Your task to perform on an android device: See recent photos Image 0: 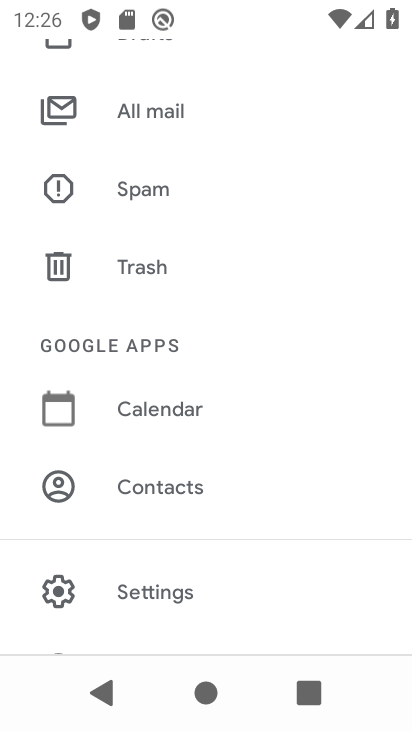
Step 0: press home button
Your task to perform on an android device: See recent photos Image 1: 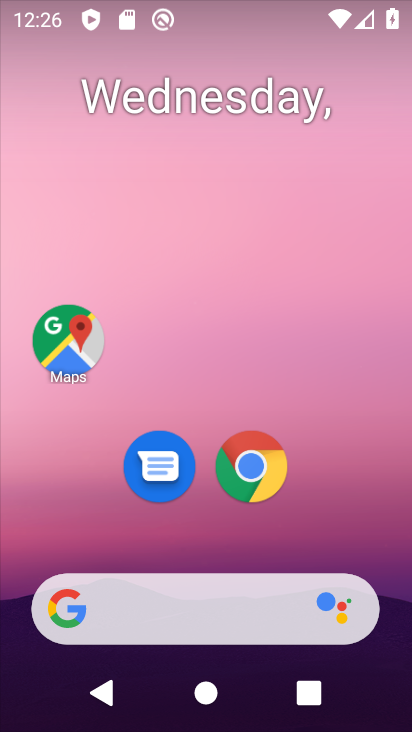
Step 1: drag from (394, 517) to (352, 0)
Your task to perform on an android device: See recent photos Image 2: 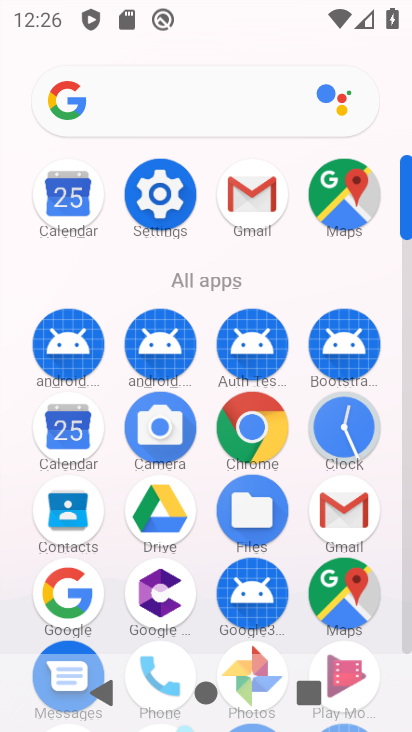
Step 2: click (404, 641)
Your task to perform on an android device: See recent photos Image 3: 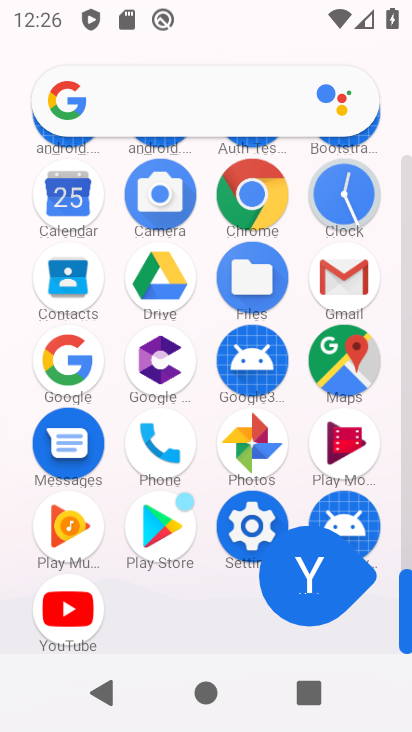
Step 3: click (404, 641)
Your task to perform on an android device: See recent photos Image 4: 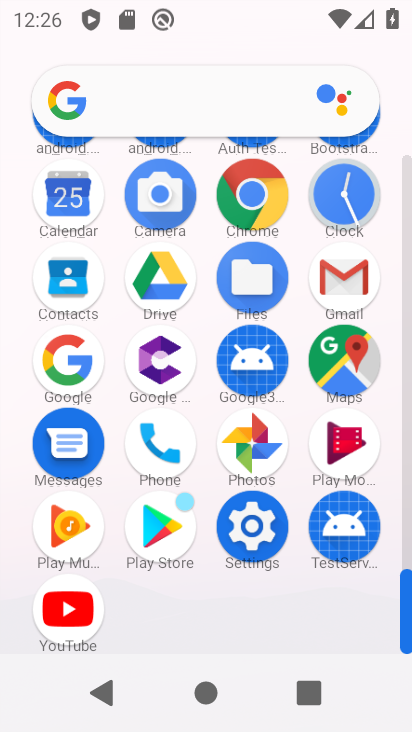
Step 4: click (268, 450)
Your task to perform on an android device: See recent photos Image 5: 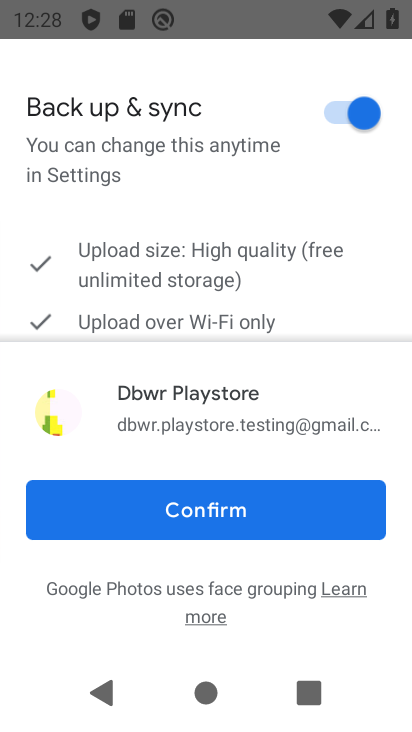
Step 5: click (191, 517)
Your task to perform on an android device: See recent photos Image 6: 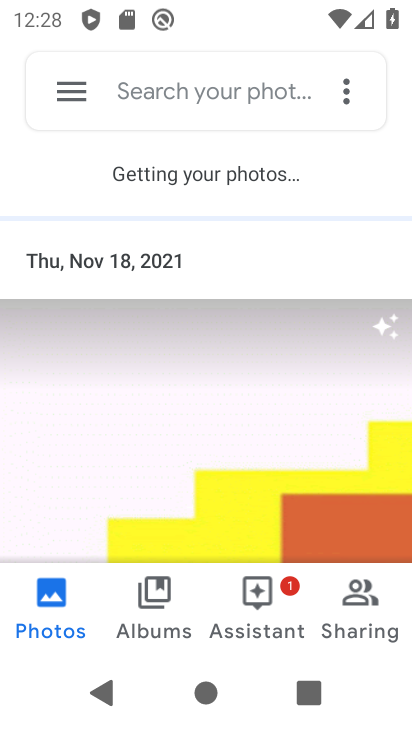
Step 6: click (62, 95)
Your task to perform on an android device: See recent photos Image 7: 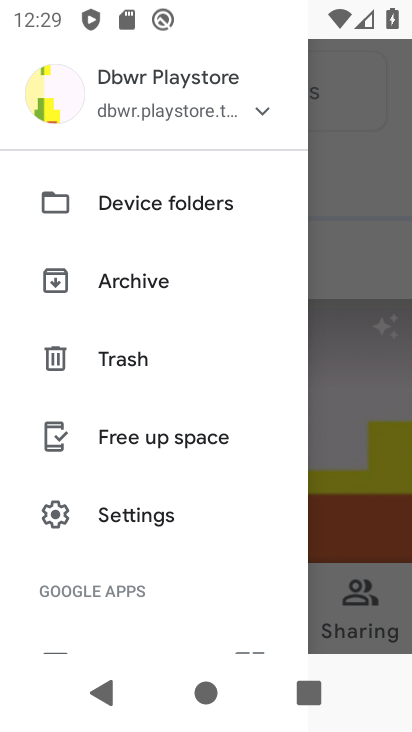
Step 7: click (347, 457)
Your task to perform on an android device: See recent photos Image 8: 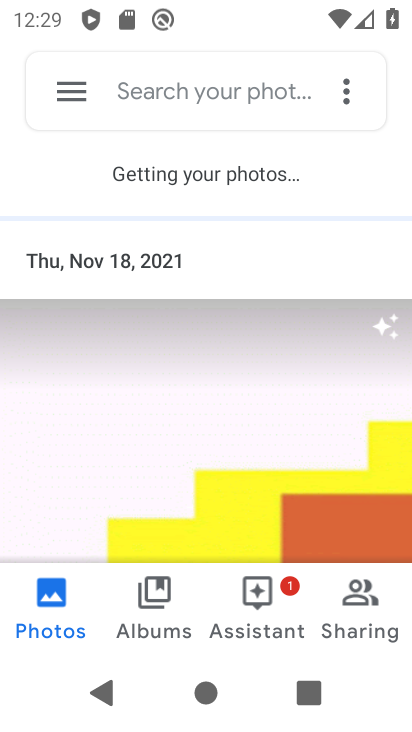
Step 8: task complete